Your task to perform on an android device: Go to Android settings Image 0: 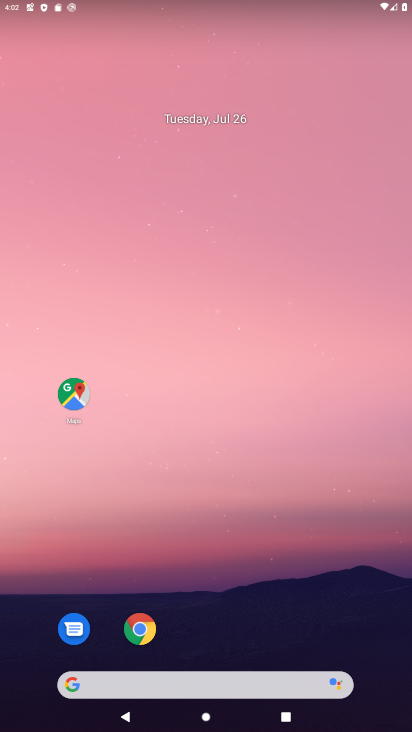
Step 0: drag from (295, 617) to (272, 14)
Your task to perform on an android device: Go to Android settings Image 1: 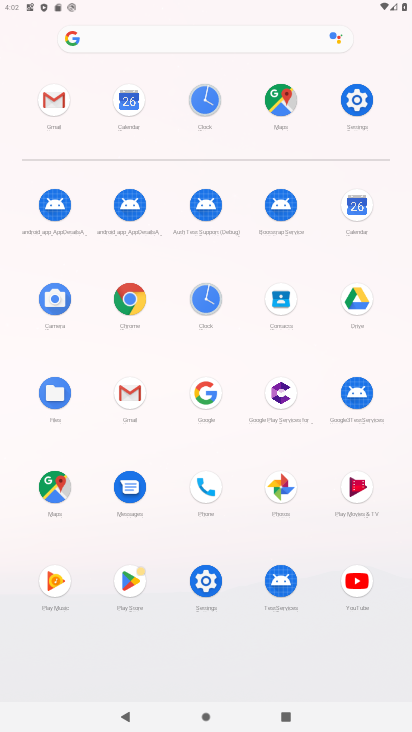
Step 1: click (212, 576)
Your task to perform on an android device: Go to Android settings Image 2: 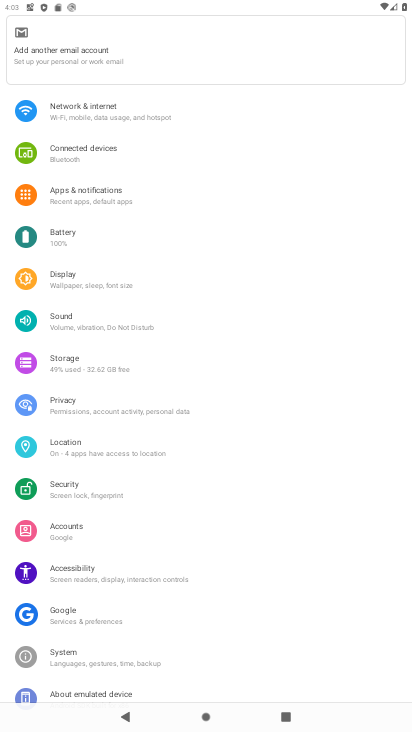
Step 2: task complete